Your task to perform on an android device: turn on wifi Image 0: 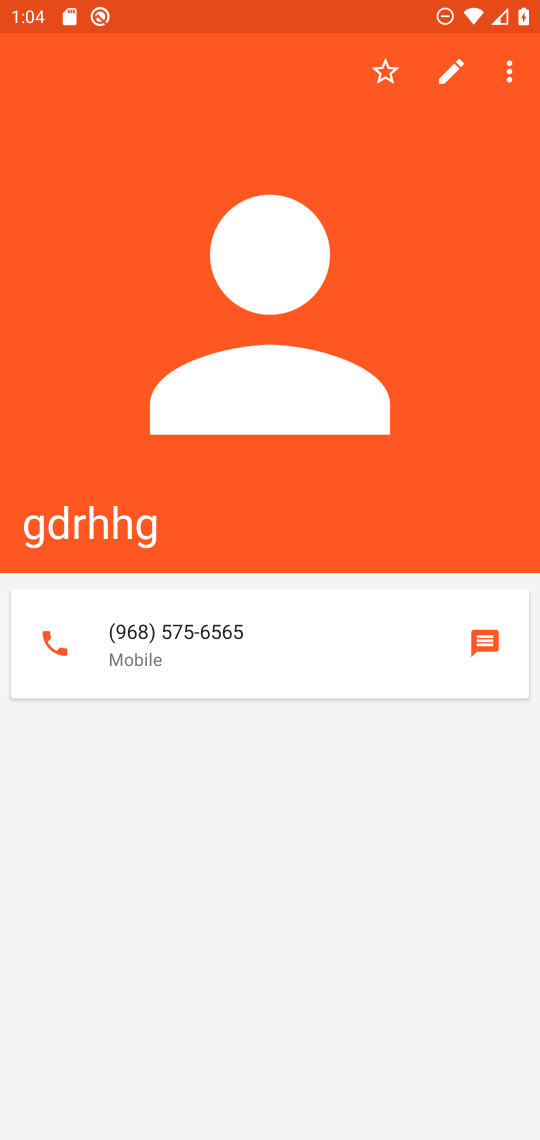
Step 0: press home button
Your task to perform on an android device: turn on wifi Image 1: 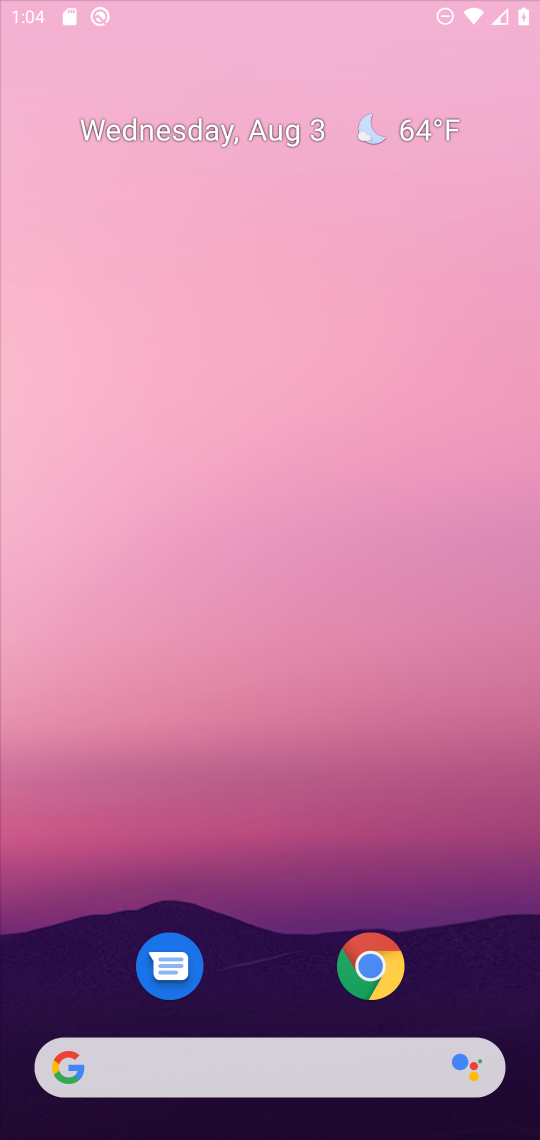
Step 1: drag from (281, 897) to (298, 272)
Your task to perform on an android device: turn on wifi Image 2: 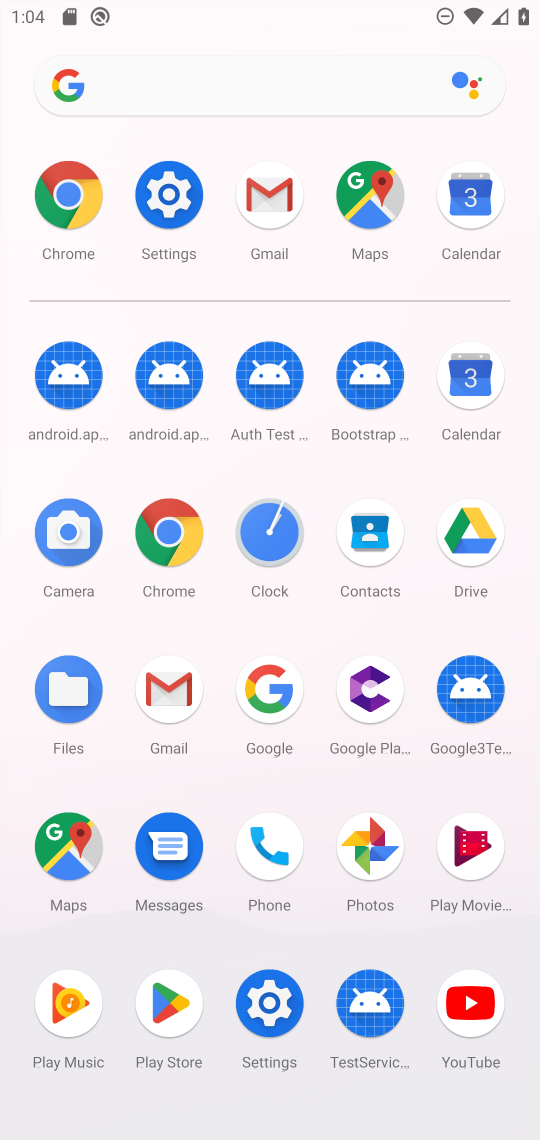
Step 2: click (147, 214)
Your task to perform on an android device: turn on wifi Image 3: 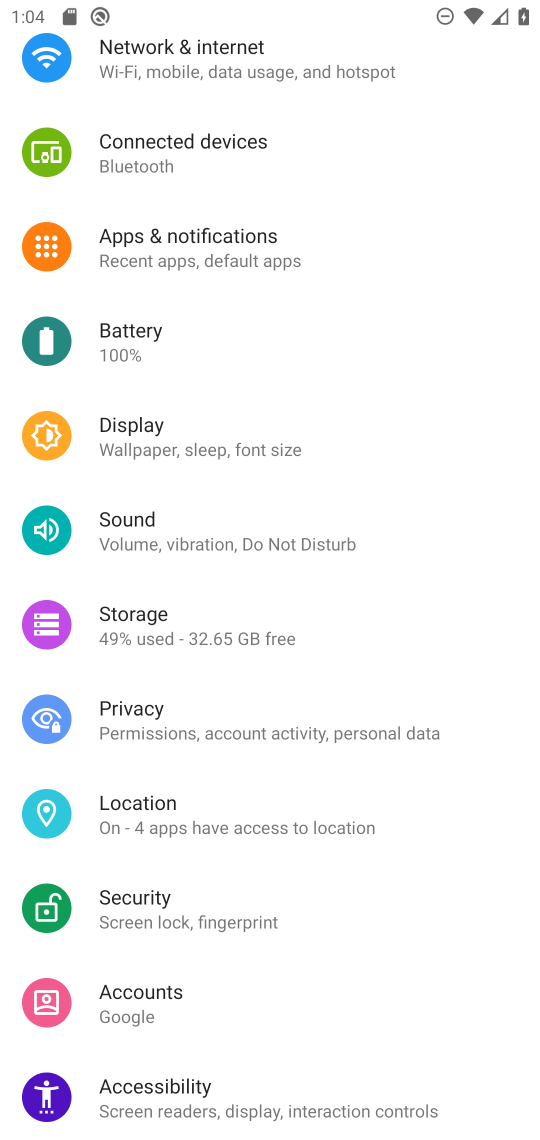
Step 3: click (320, 88)
Your task to perform on an android device: turn on wifi Image 4: 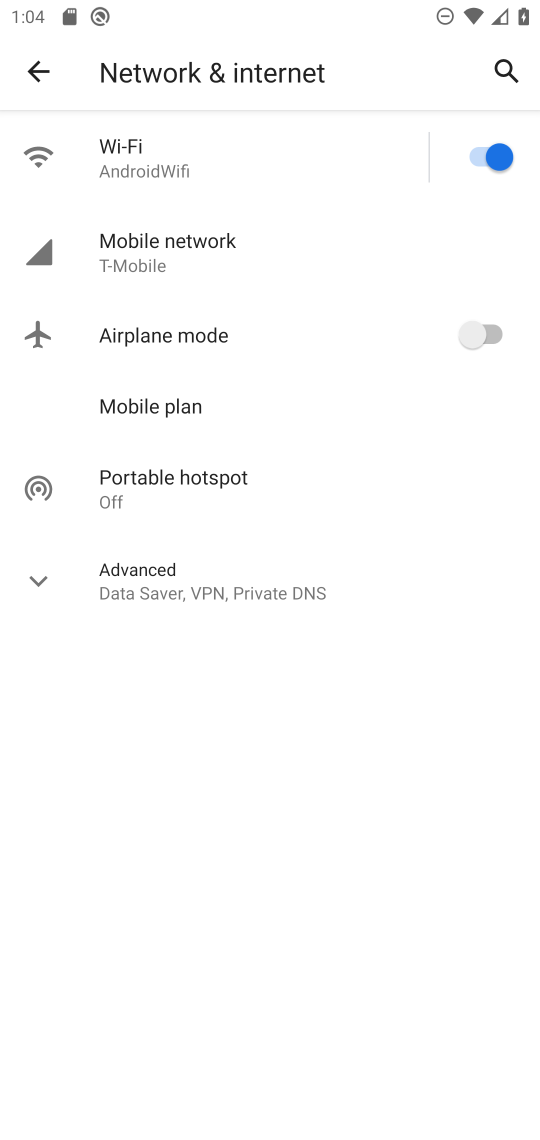
Step 4: task complete